Your task to perform on an android device: toggle pop-ups in chrome Image 0: 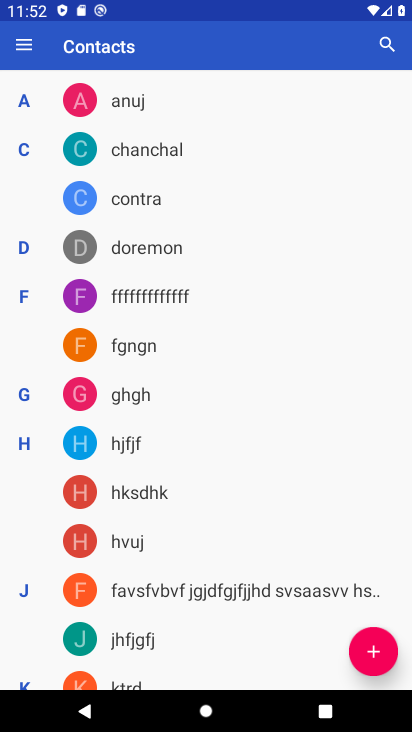
Step 0: press home button
Your task to perform on an android device: toggle pop-ups in chrome Image 1: 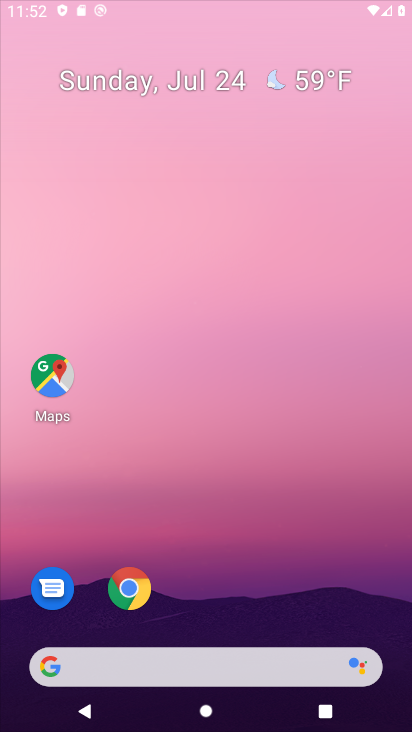
Step 1: drag from (377, 618) to (134, 96)
Your task to perform on an android device: toggle pop-ups in chrome Image 2: 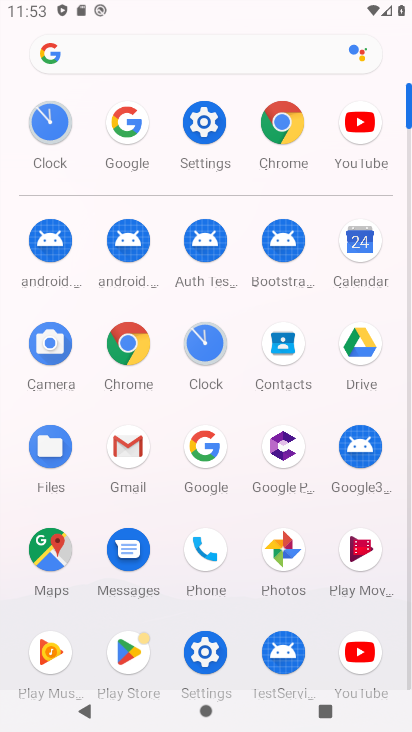
Step 2: click (271, 127)
Your task to perform on an android device: toggle pop-ups in chrome Image 3: 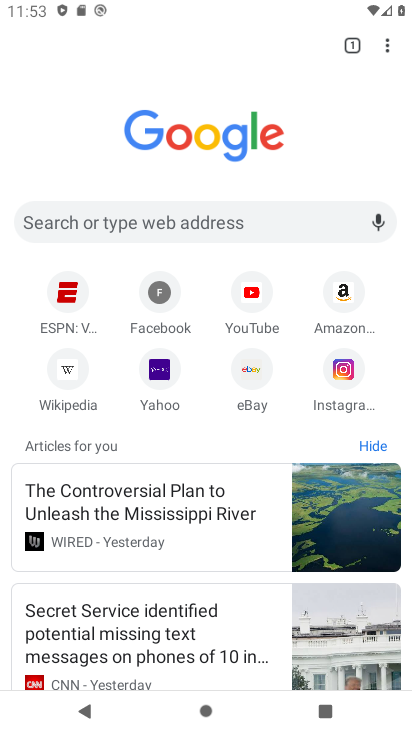
Step 3: click (385, 42)
Your task to perform on an android device: toggle pop-ups in chrome Image 4: 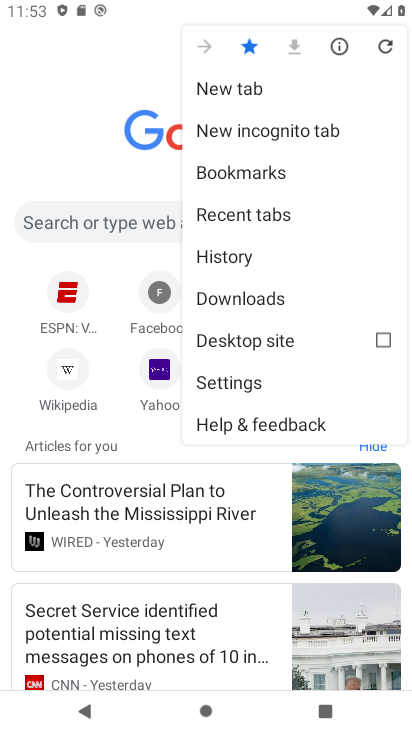
Step 4: click (218, 385)
Your task to perform on an android device: toggle pop-ups in chrome Image 5: 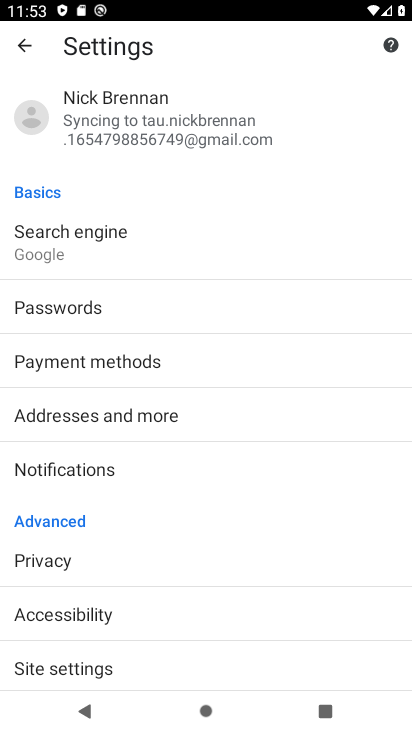
Step 5: click (110, 657)
Your task to perform on an android device: toggle pop-ups in chrome Image 6: 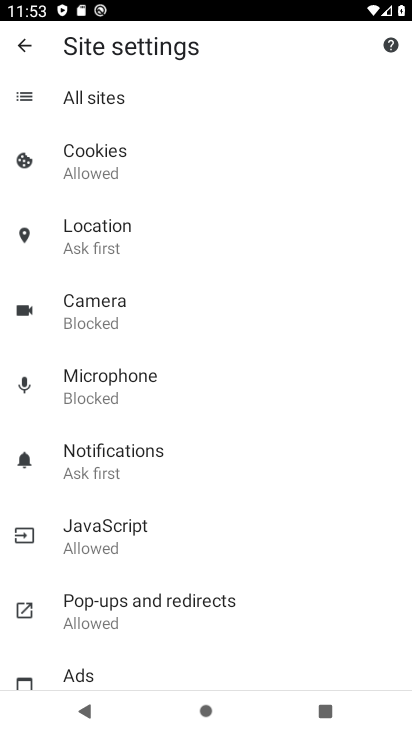
Step 6: click (168, 628)
Your task to perform on an android device: toggle pop-ups in chrome Image 7: 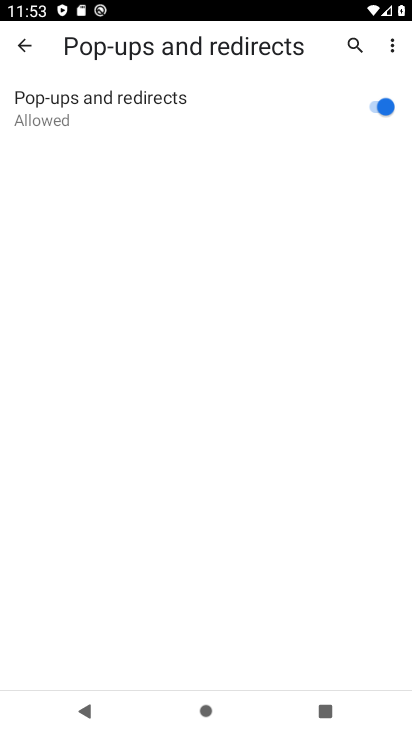
Step 7: click (379, 108)
Your task to perform on an android device: toggle pop-ups in chrome Image 8: 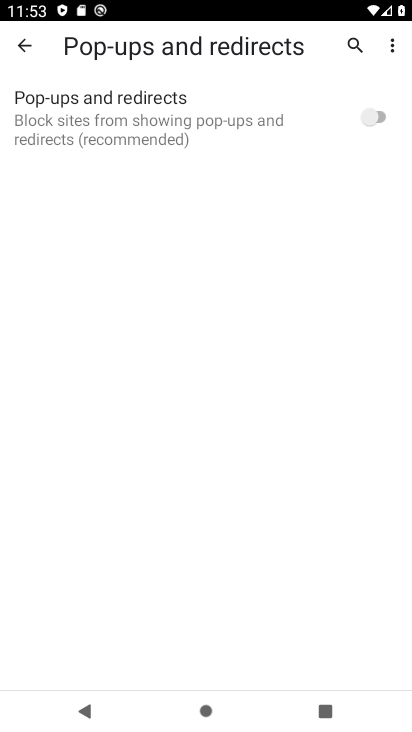
Step 8: task complete